Your task to perform on an android device: move a message to another label in the gmail app Image 0: 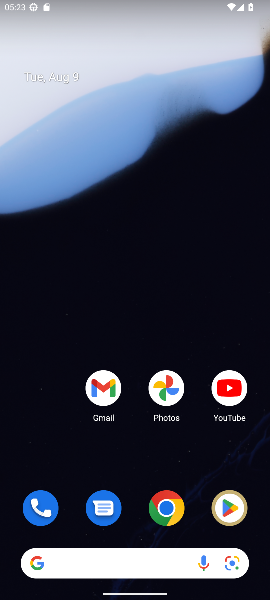
Step 0: click (107, 393)
Your task to perform on an android device: move a message to another label in the gmail app Image 1: 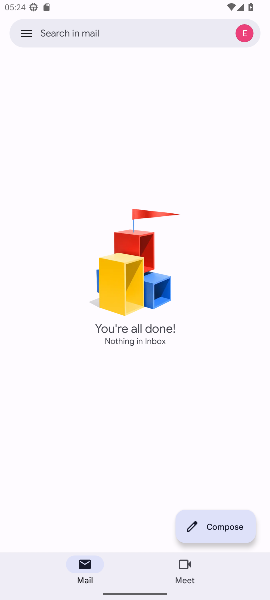
Step 1: click (22, 31)
Your task to perform on an android device: move a message to another label in the gmail app Image 2: 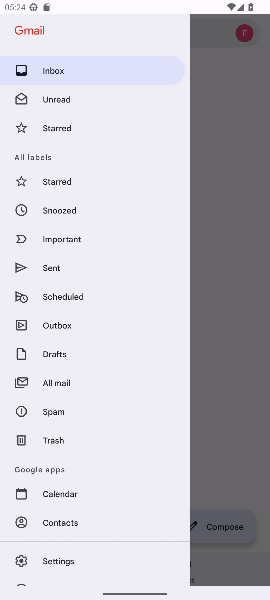
Step 2: click (71, 382)
Your task to perform on an android device: move a message to another label in the gmail app Image 3: 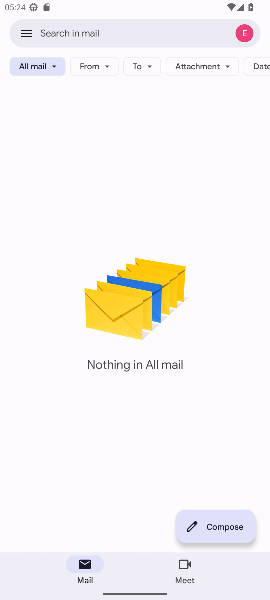
Step 3: task complete